Your task to perform on an android device: choose inbox layout in the gmail app Image 0: 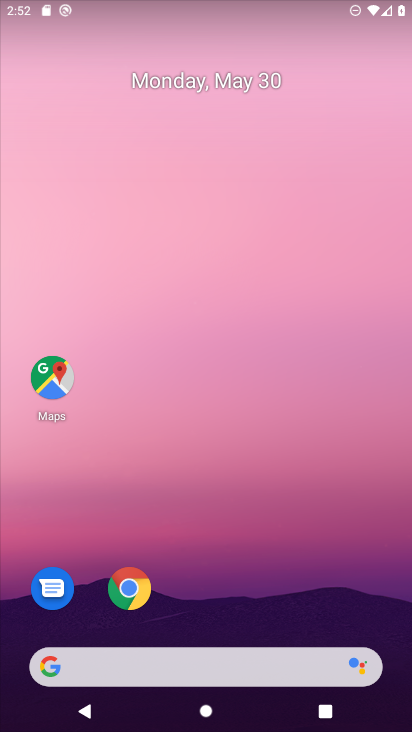
Step 0: drag from (268, 582) to (275, 158)
Your task to perform on an android device: choose inbox layout in the gmail app Image 1: 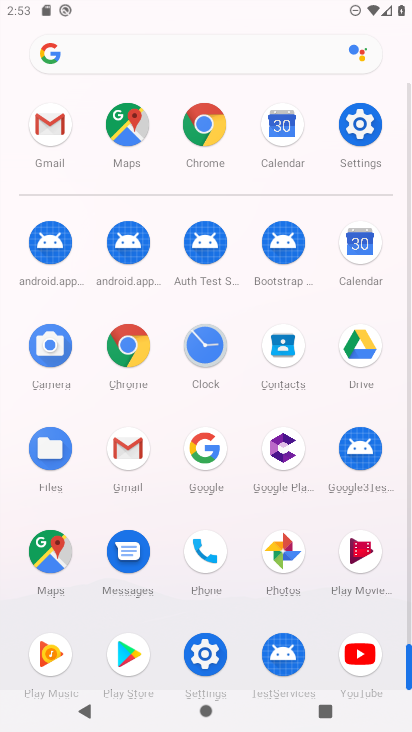
Step 1: click (123, 443)
Your task to perform on an android device: choose inbox layout in the gmail app Image 2: 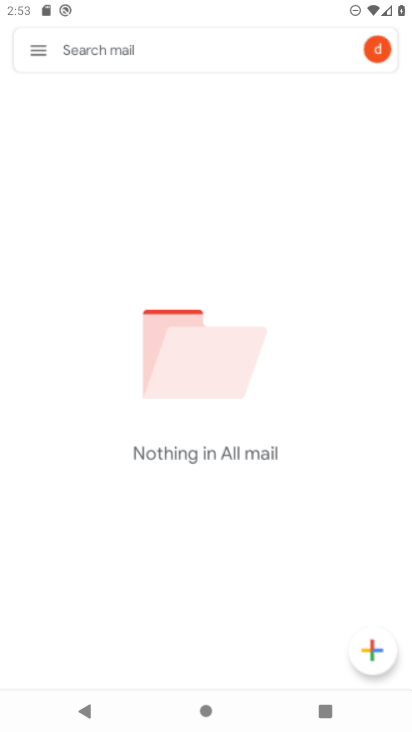
Step 2: click (38, 37)
Your task to perform on an android device: choose inbox layout in the gmail app Image 3: 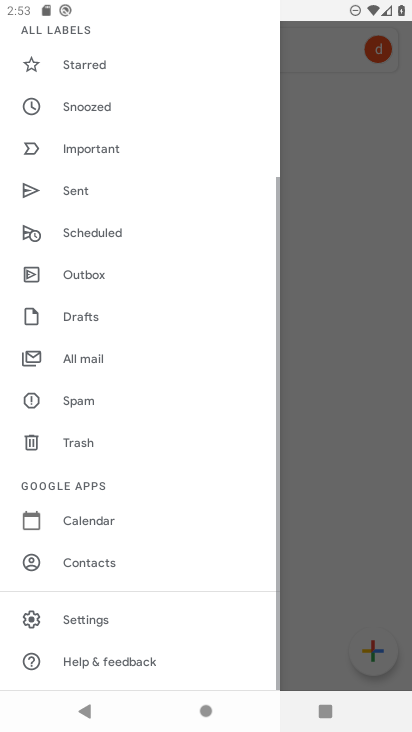
Step 3: click (64, 611)
Your task to perform on an android device: choose inbox layout in the gmail app Image 4: 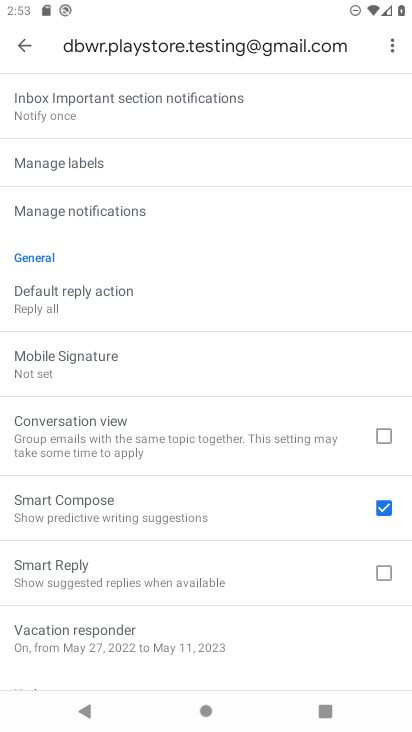
Step 4: drag from (147, 198) to (161, 573)
Your task to perform on an android device: choose inbox layout in the gmail app Image 5: 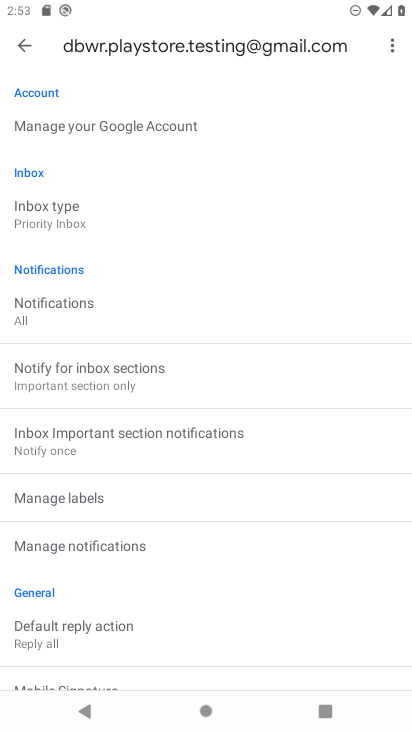
Step 5: click (73, 209)
Your task to perform on an android device: choose inbox layout in the gmail app Image 6: 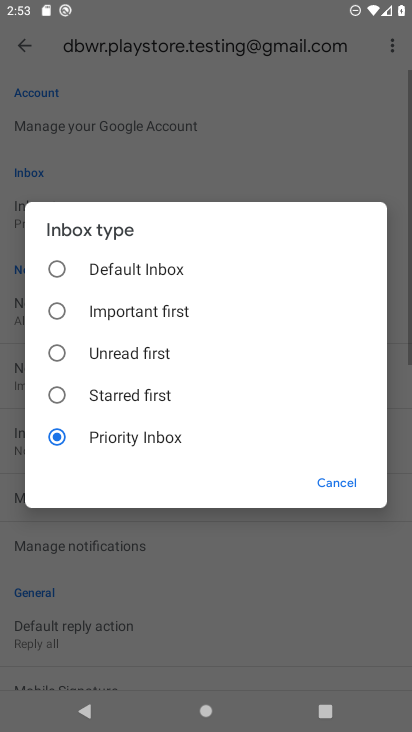
Step 6: click (112, 349)
Your task to perform on an android device: choose inbox layout in the gmail app Image 7: 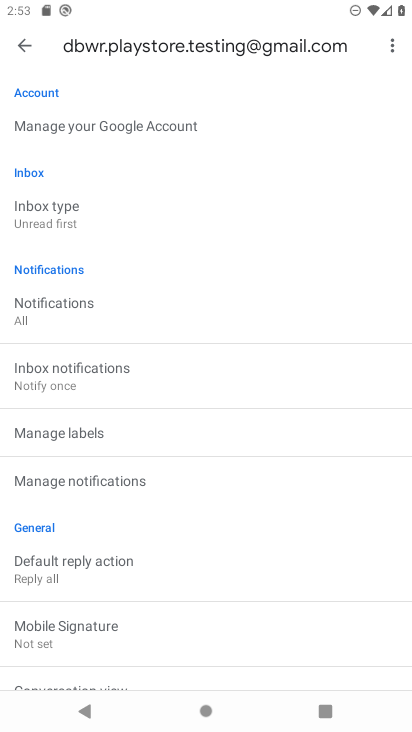
Step 7: task complete